Your task to perform on an android device: Go to accessibility settings Image 0: 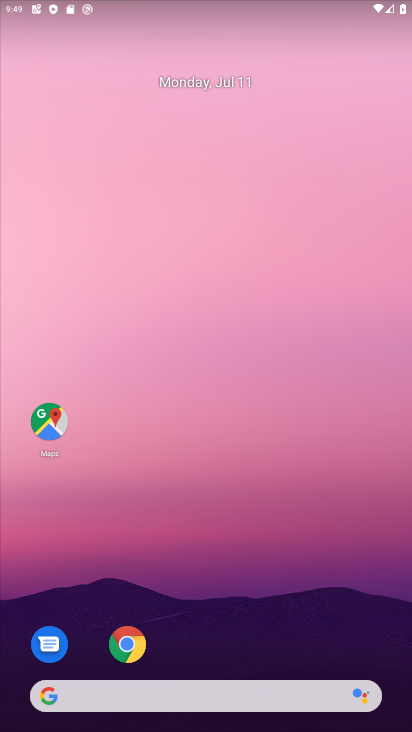
Step 0: drag from (204, 648) to (216, 109)
Your task to perform on an android device: Go to accessibility settings Image 1: 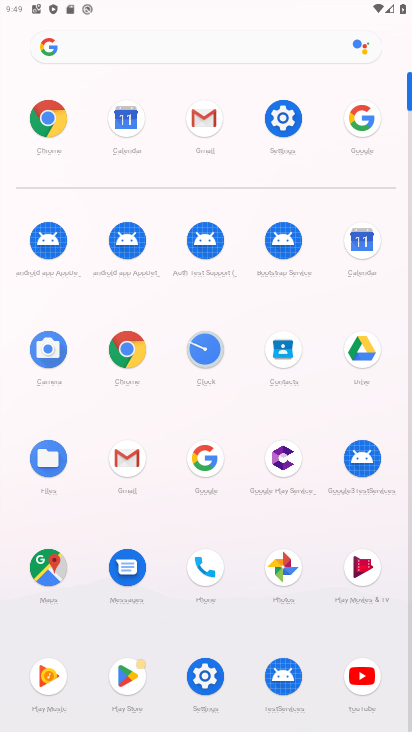
Step 1: click (205, 678)
Your task to perform on an android device: Go to accessibility settings Image 2: 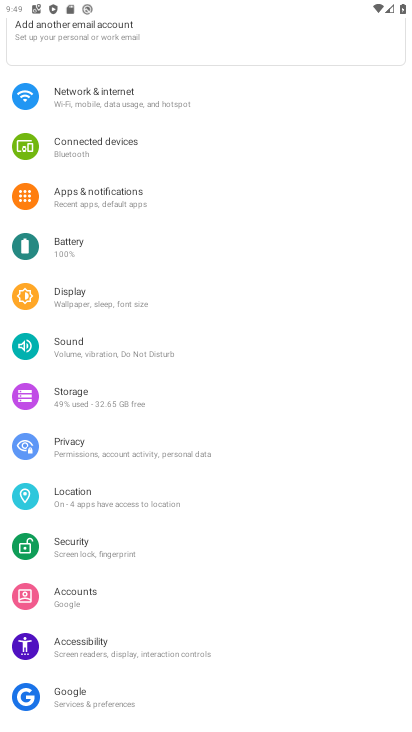
Step 2: click (121, 647)
Your task to perform on an android device: Go to accessibility settings Image 3: 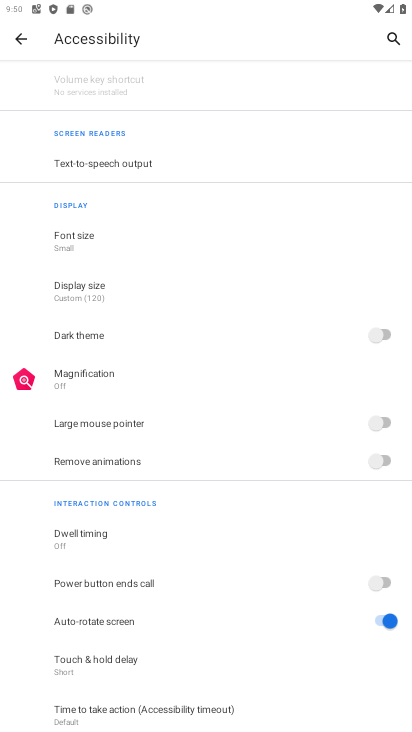
Step 3: task complete